Your task to perform on an android device: turn off location Image 0: 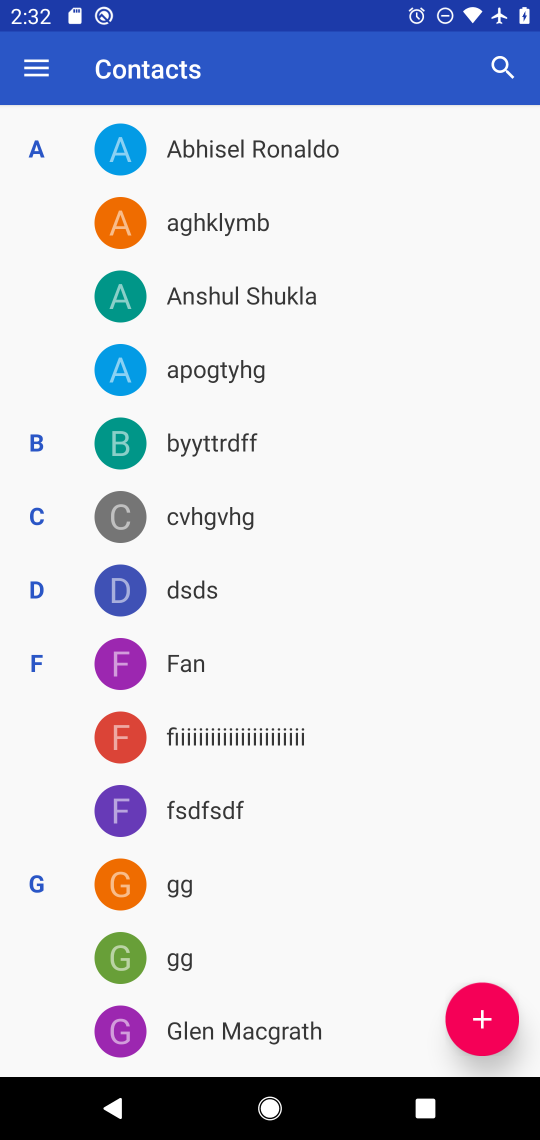
Step 0: press home button
Your task to perform on an android device: turn off location Image 1: 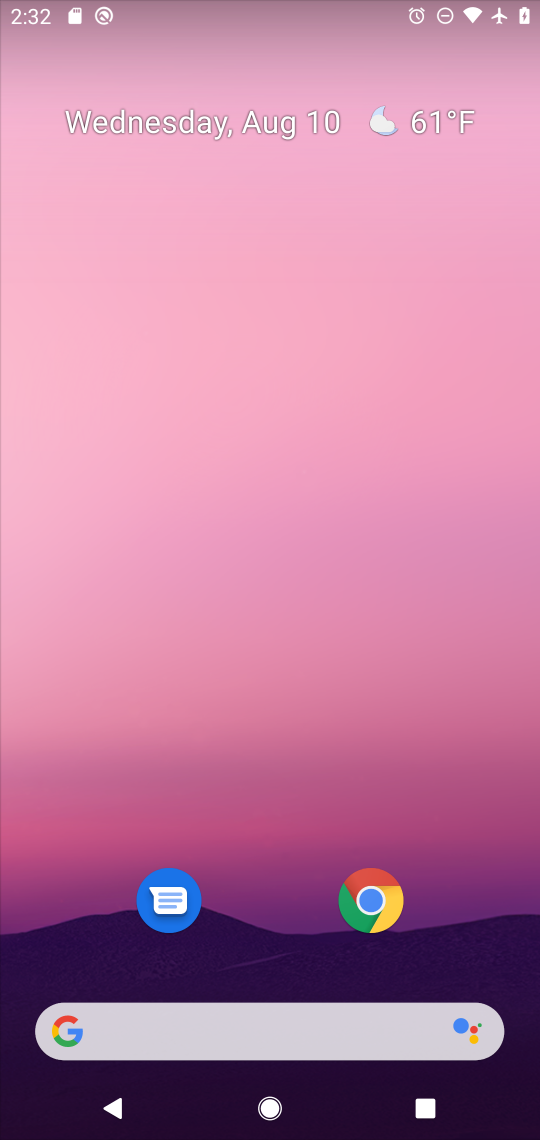
Step 1: drag from (294, 924) to (404, 77)
Your task to perform on an android device: turn off location Image 2: 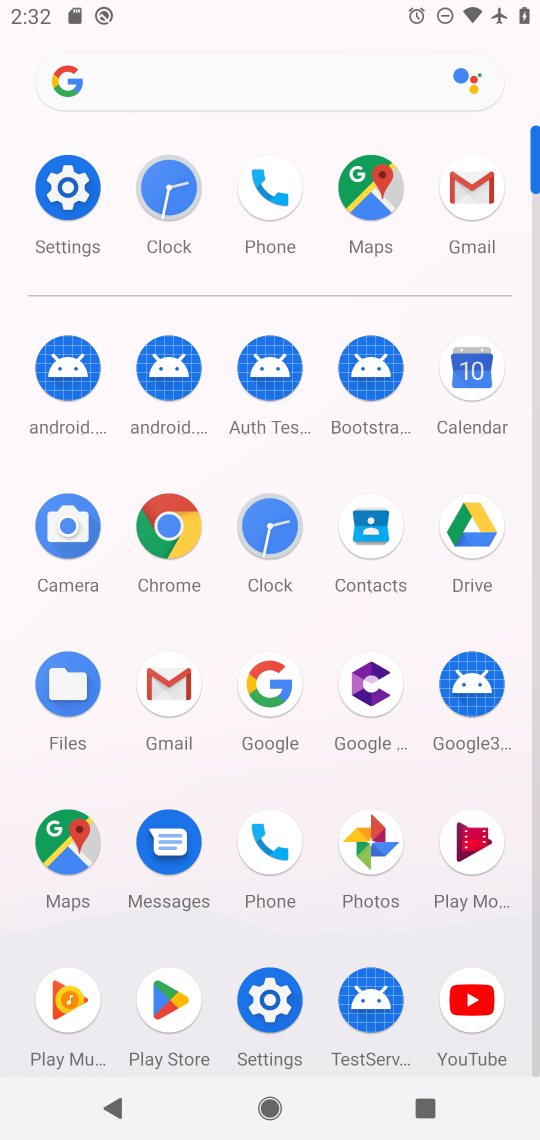
Step 2: click (76, 191)
Your task to perform on an android device: turn off location Image 3: 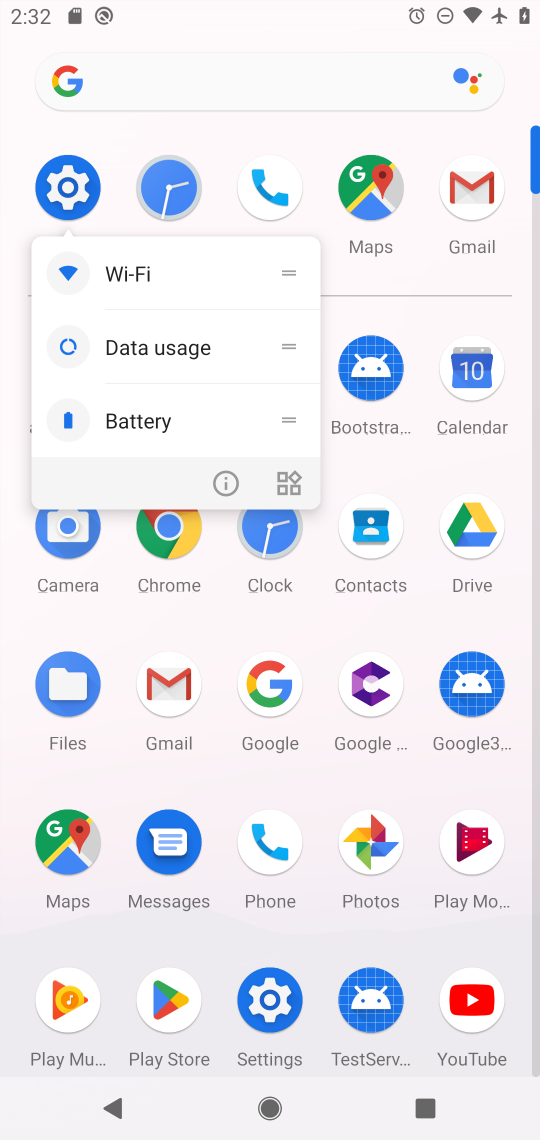
Step 3: click (74, 185)
Your task to perform on an android device: turn off location Image 4: 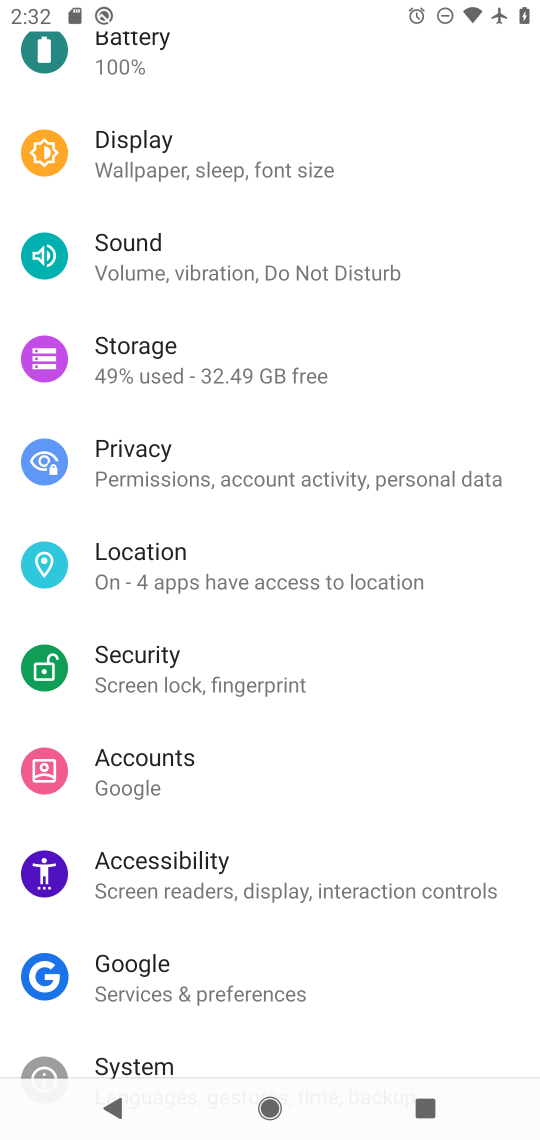
Step 4: click (203, 552)
Your task to perform on an android device: turn off location Image 5: 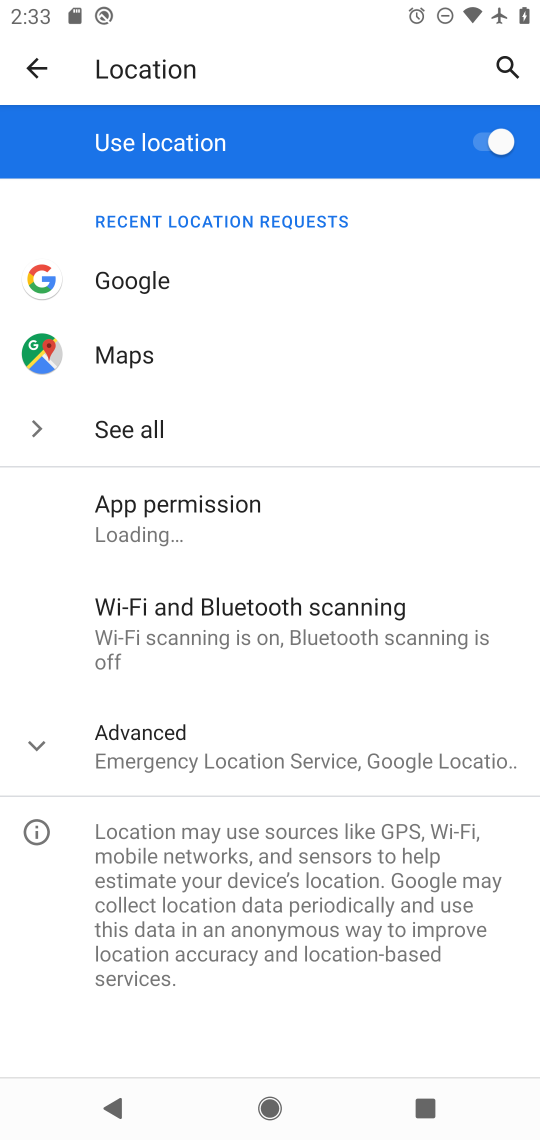
Step 5: click (491, 133)
Your task to perform on an android device: turn off location Image 6: 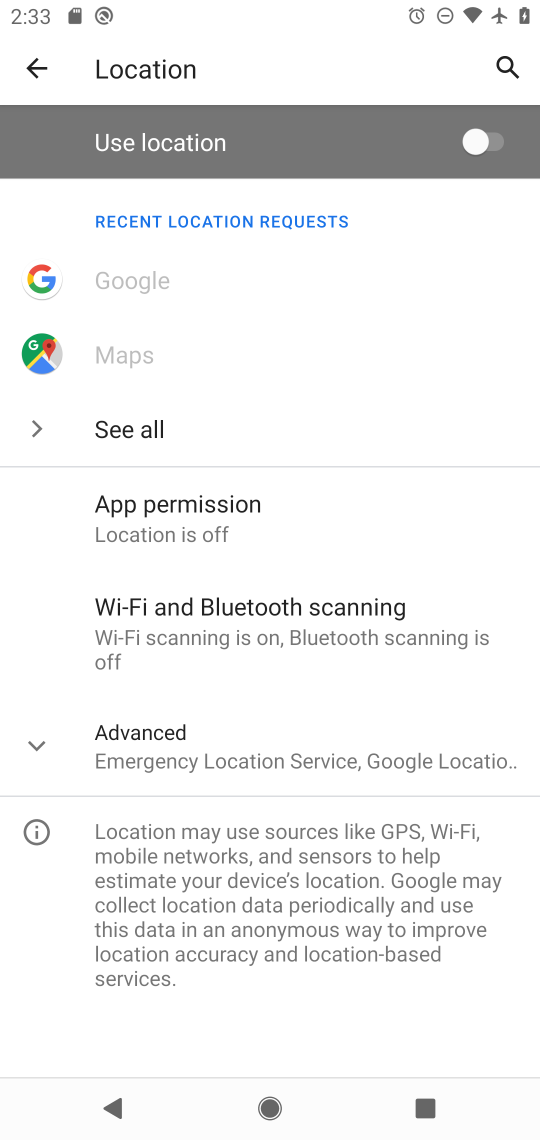
Step 6: task complete